Your task to perform on an android device: Open calendar and show me the third week of next month Image 0: 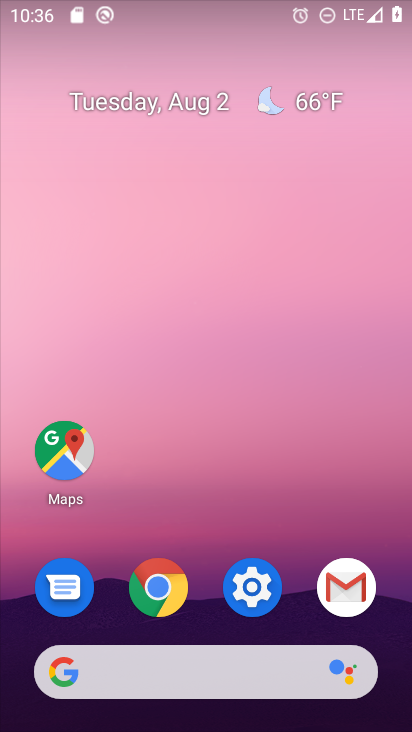
Step 0: press home button
Your task to perform on an android device: Open calendar and show me the third week of next month Image 1: 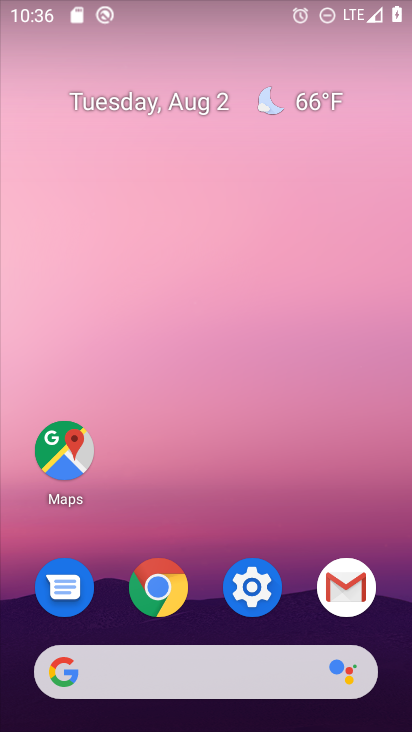
Step 1: drag from (293, 689) to (263, 282)
Your task to perform on an android device: Open calendar and show me the third week of next month Image 2: 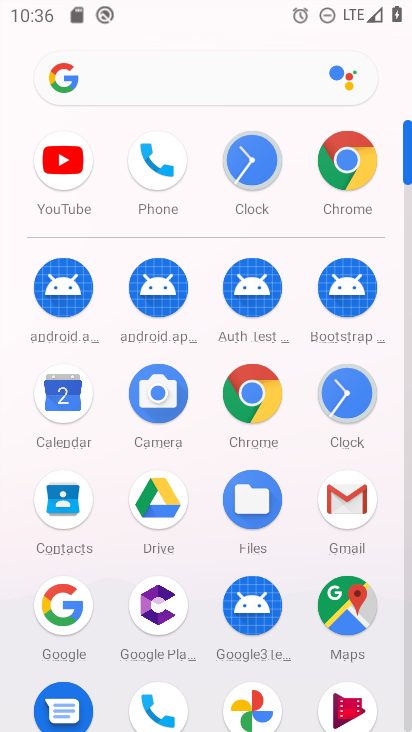
Step 2: click (70, 392)
Your task to perform on an android device: Open calendar and show me the third week of next month Image 3: 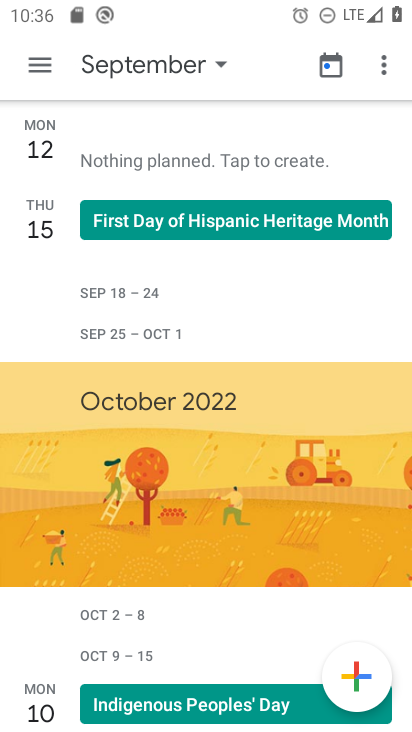
Step 3: click (40, 69)
Your task to perform on an android device: Open calendar and show me the third week of next month Image 4: 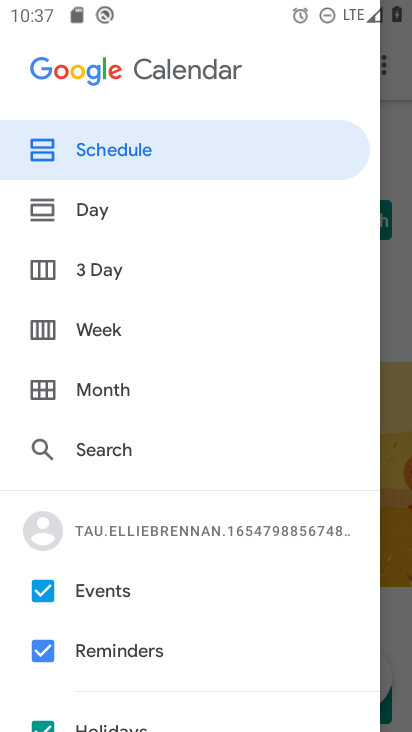
Step 4: click (107, 387)
Your task to perform on an android device: Open calendar and show me the third week of next month Image 5: 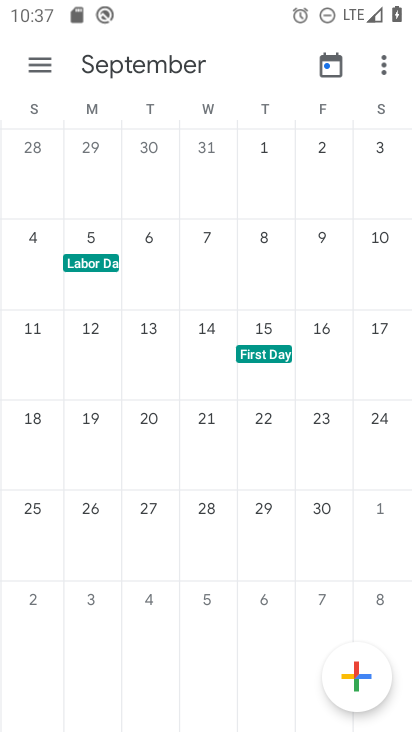
Step 5: click (76, 382)
Your task to perform on an android device: Open calendar and show me the third week of next month Image 6: 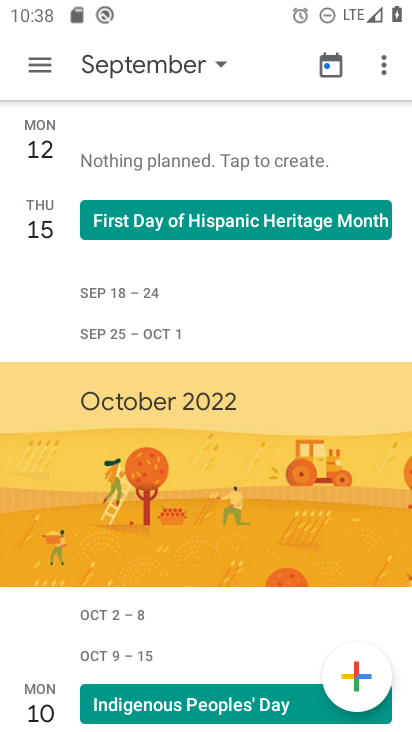
Step 6: task complete